Your task to perform on an android device: Open Google Chrome and click the shortcut for Amazon.com Image 0: 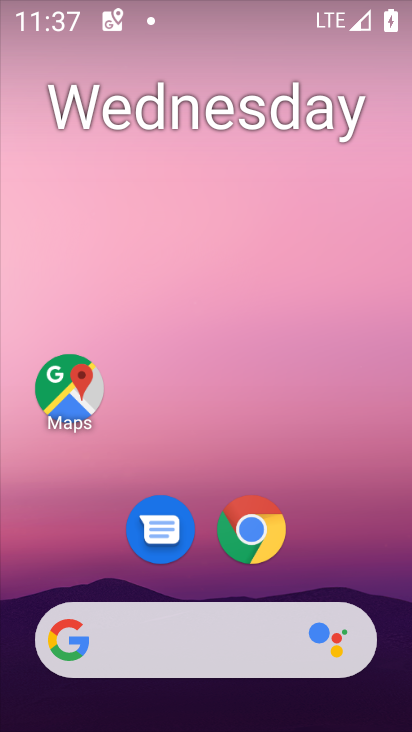
Step 0: click (251, 528)
Your task to perform on an android device: Open Google Chrome and click the shortcut for Amazon.com Image 1: 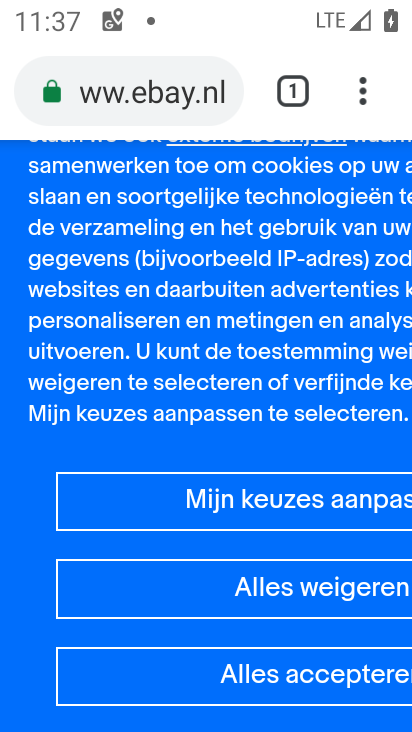
Step 1: click (358, 93)
Your task to perform on an android device: Open Google Chrome and click the shortcut for Amazon.com Image 2: 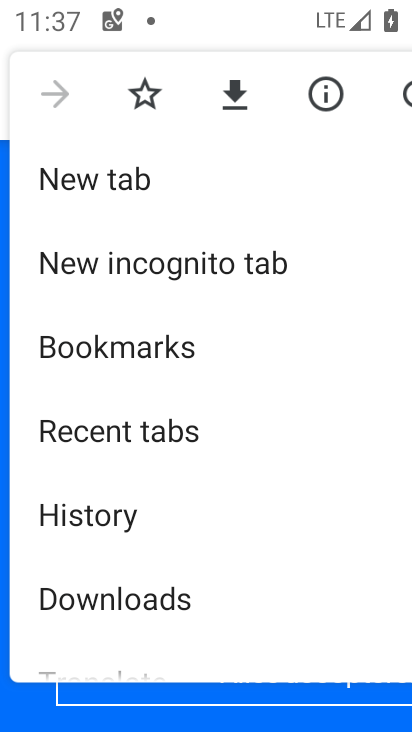
Step 2: click (75, 179)
Your task to perform on an android device: Open Google Chrome and click the shortcut for Amazon.com Image 3: 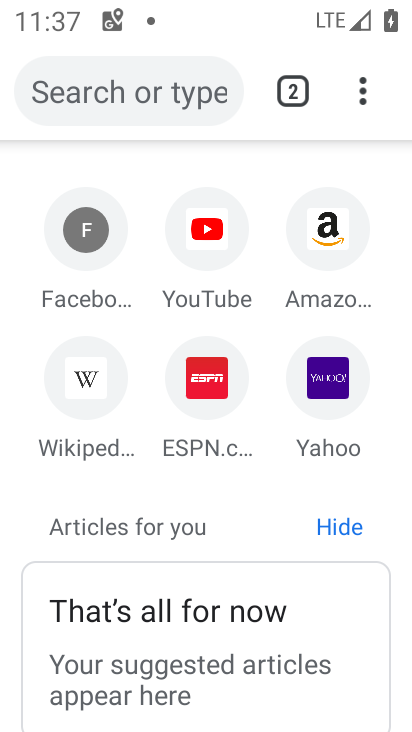
Step 3: click (333, 226)
Your task to perform on an android device: Open Google Chrome and click the shortcut for Amazon.com Image 4: 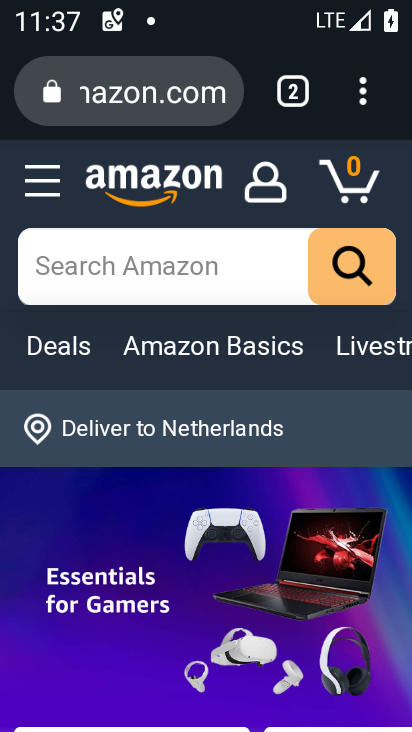
Step 4: task complete